Your task to perform on an android device: turn on airplane mode Image 0: 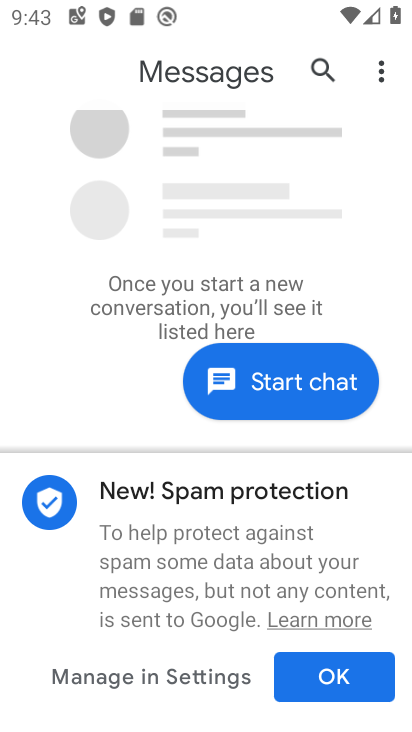
Step 0: press home button
Your task to perform on an android device: turn on airplane mode Image 1: 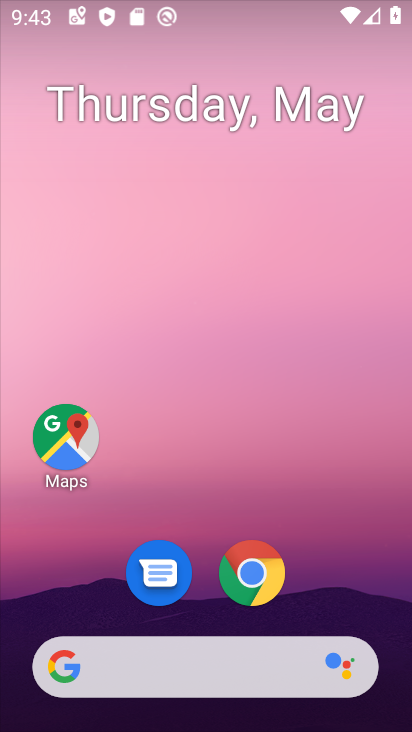
Step 1: drag from (207, 525) to (201, 92)
Your task to perform on an android device: turn on airplane mode Image 2: 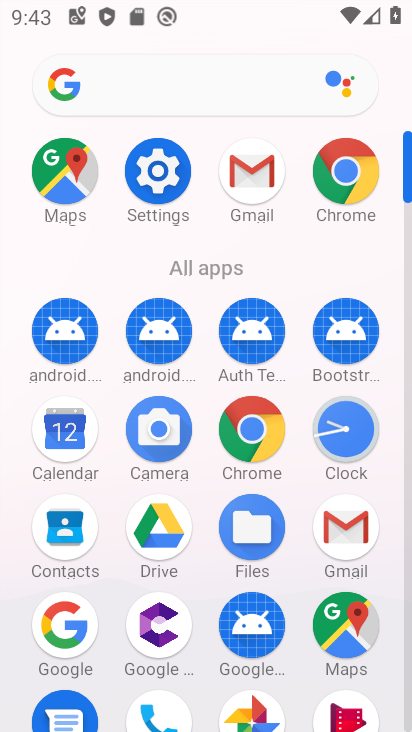
Step 2: click (165, 163)
Your task to perform on an android device: turn on airplane mode Image 3: 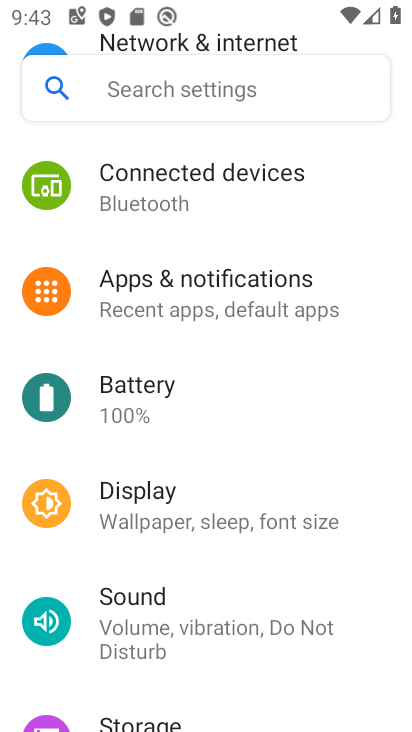
Step 3: drag from (248, 223) to (261, 427)
Your task to perform on an android device: turn on airplane mode Image 4: 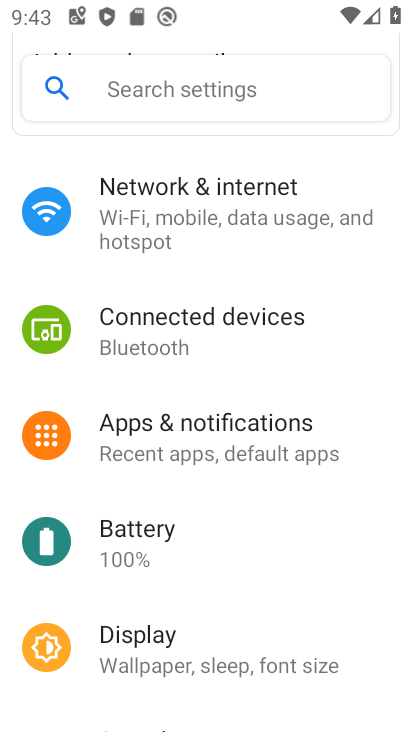
Step 4: click (229, 226)
Your task to perform on an android device: turn on airplane mode Image 5: 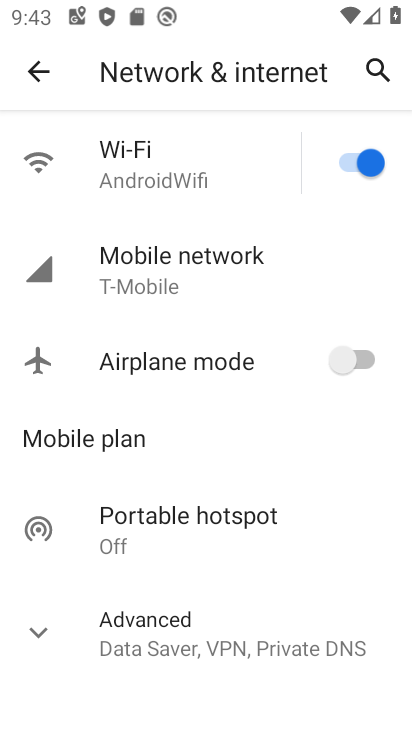
Step 5: click (355, 343)
Your task to perform on an android device: turn on airplane mode Image 6: 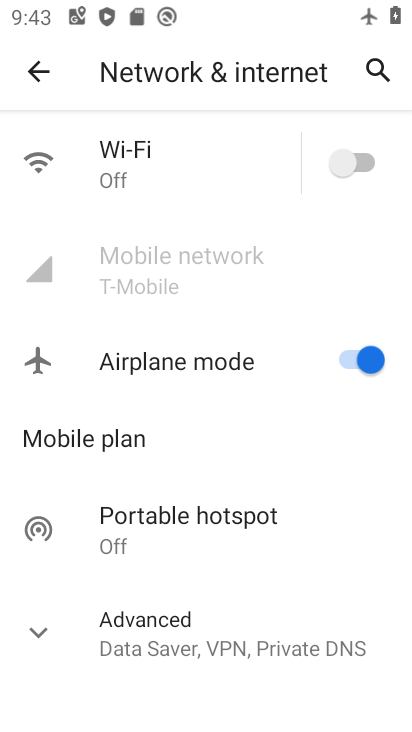
Step 6: task complete